Your task to perform on an android device: check the backup settings in the google photos Image 0: 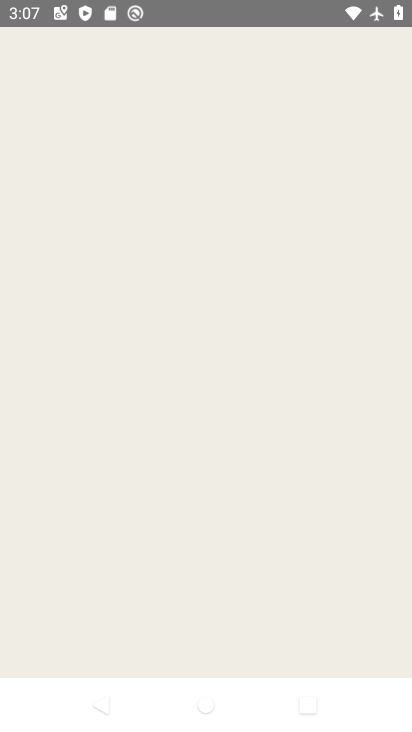
Step 0: press home button
Your task to perform on an android device: check the backup settings in the google photos Image 1: 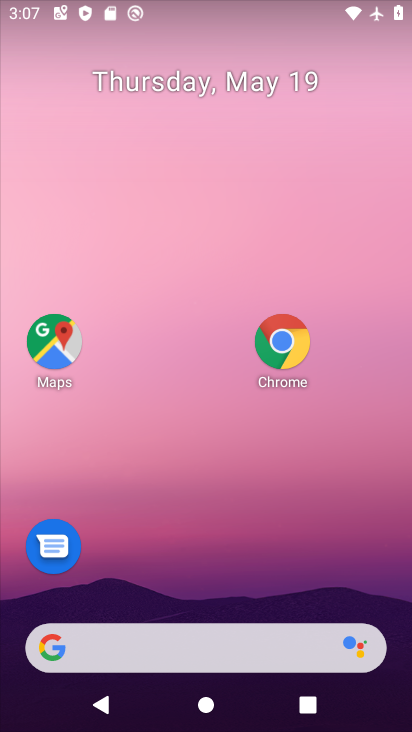
Step 1: drag from (128, 638) to (245, 246)
Your task to perform on an android device: check the backup settings in the google photos Image 2: 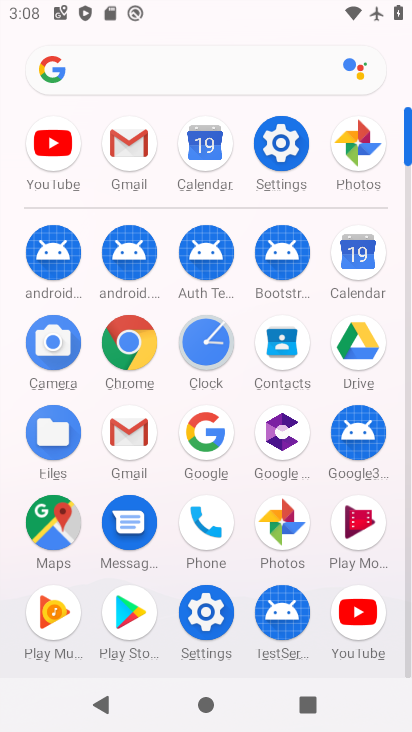
Step 2: click (362, 158)
Your task to perform on an android device: check the backup settings in the google photos Image 3: 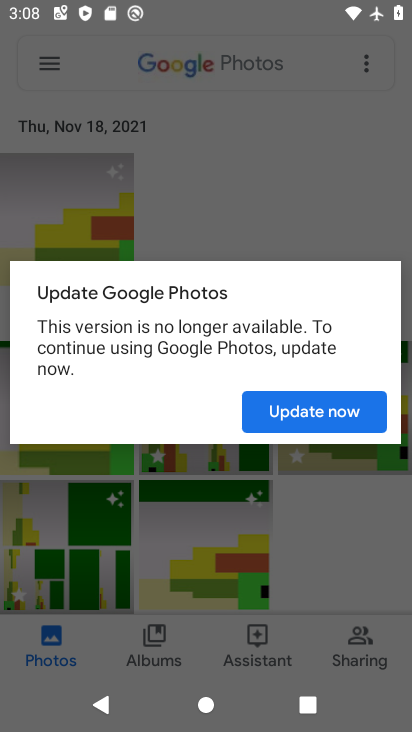
Step 3: click (306, 424)
Your task to perform on an android device: check the backup settings in the google photos Image 4: 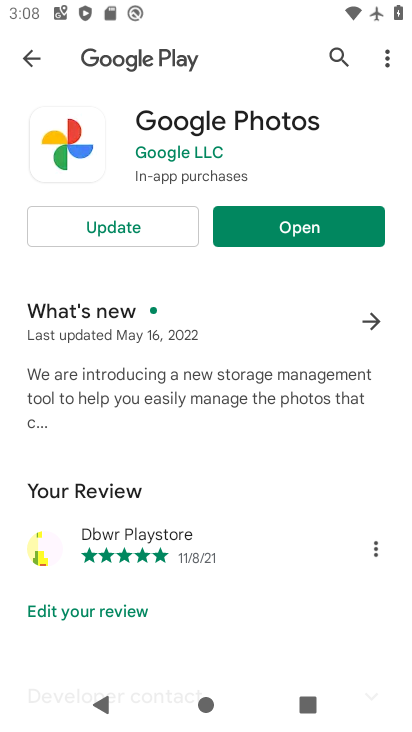
Step 4: click (308, 222)
Your task to perform on an android device: check the backup settings in the google photos Image 5: 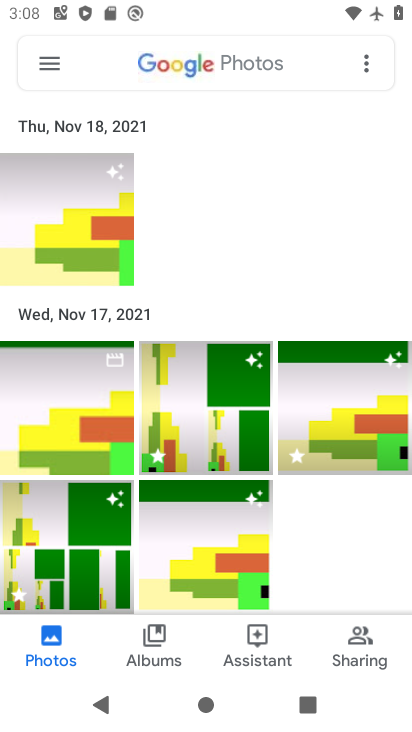
Step 5: click (41, 65)
Your task to perform on an android device: check the backup settings in the google photos Image 6: 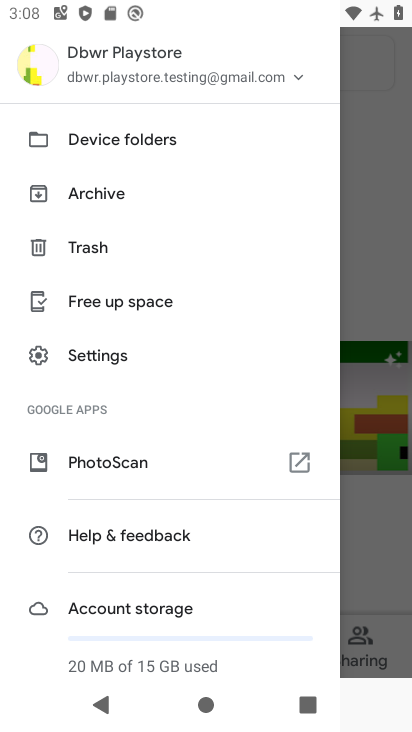
Step 6: click (110, 357)
Your task to perform on an android device: check the backup settings in the google photos Image 7: 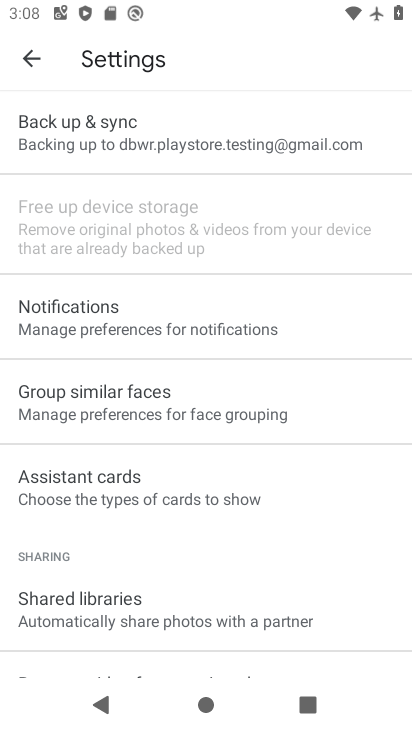
Step 7: click (176, 145)
Your task to perform on an android device: check the backup settings in the google photos Image 8: 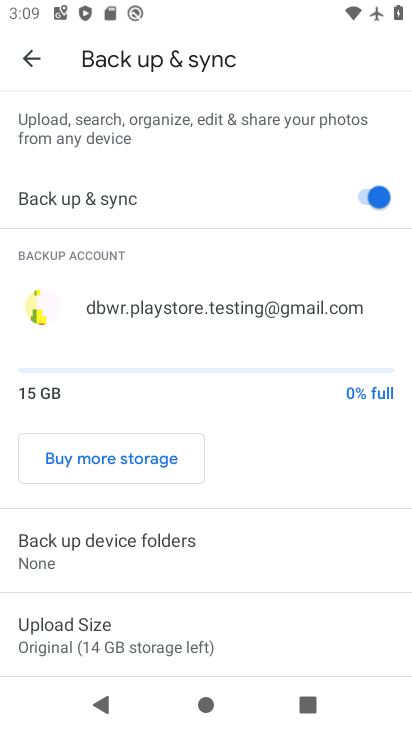
Step 8: task complete